Your task to perform on an android device: What's the weather? Image 0: 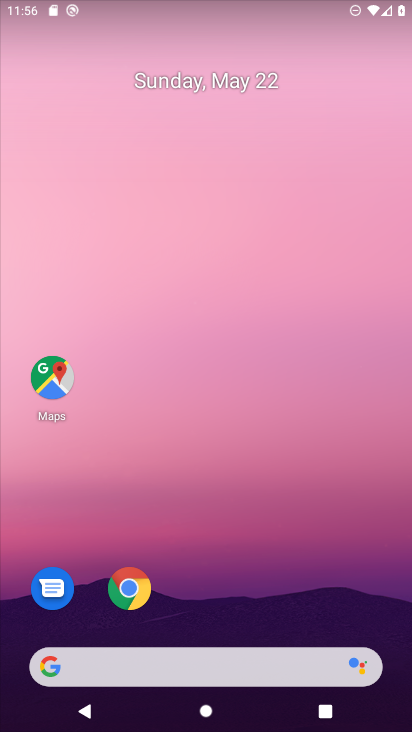
Step 0: task complete